Your task to perform on an android device: turn off location Image 0: 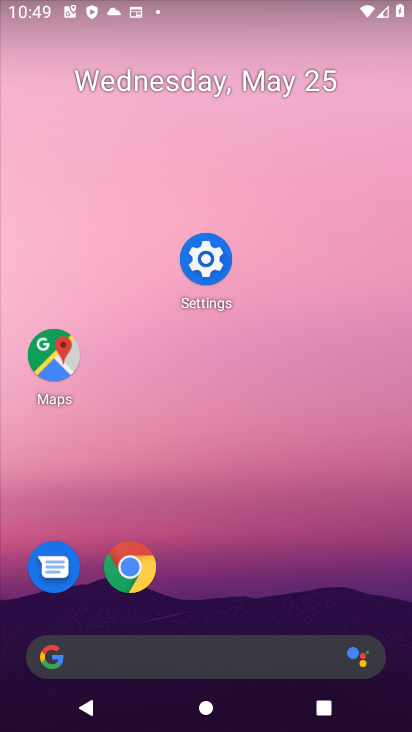
Step 0: drag from (316, 587) to (369, 118)
Your task to perform on an android device: turn off location Image 1: 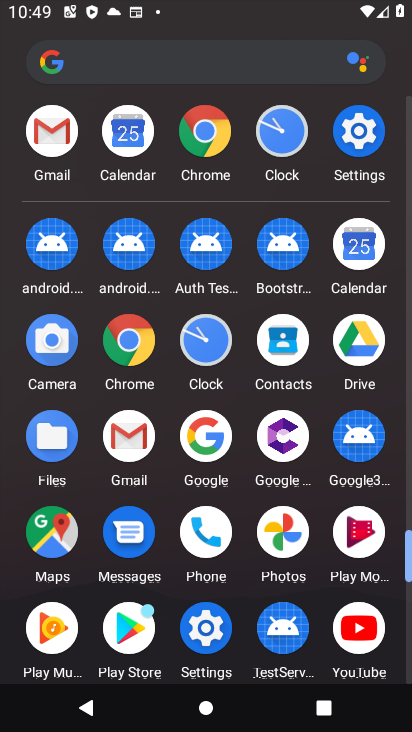
Step 1: click (357, 154)
Your task to perform on an android device: turn off location Image 2: 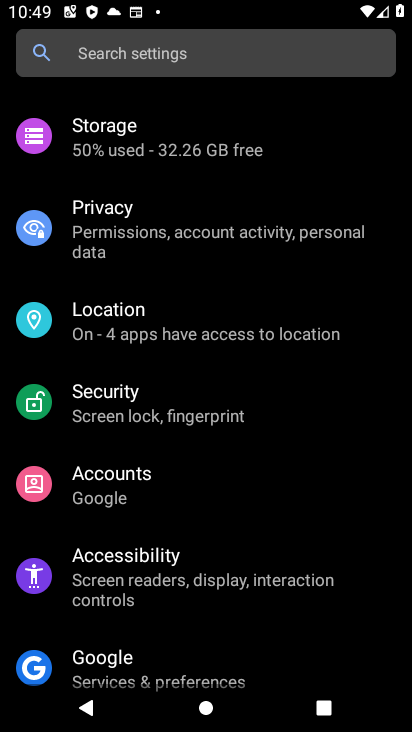
Step 2: click (294, 344)
Your task to perform on an android device: turn off location Image 3: 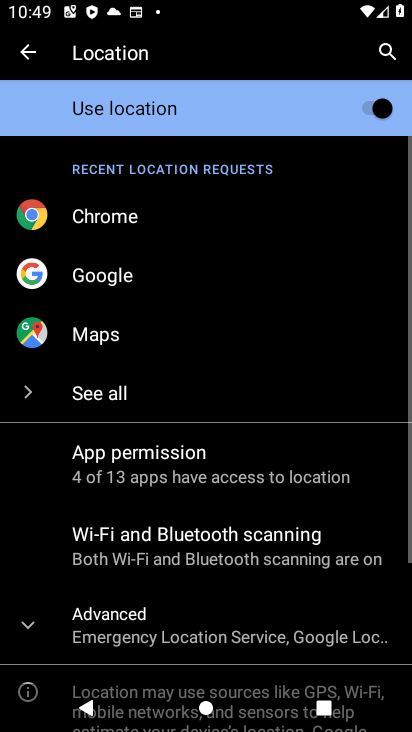
Step 3: click (345, 111)
Your task to perform on an android device: turn off location Image 4: 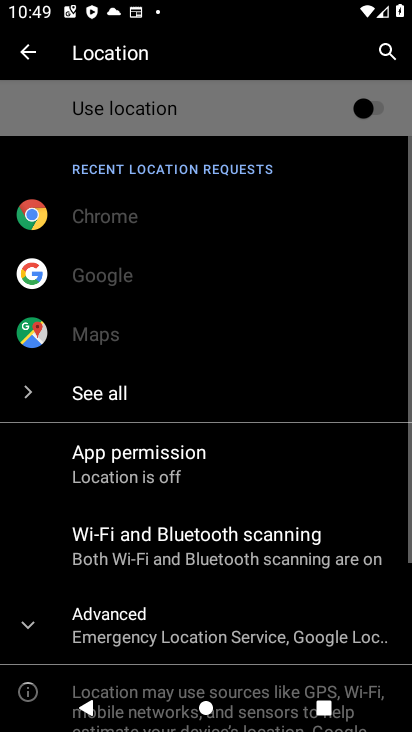
Step 4: task complete